Your task to perform on an android device: Toggle the flashlight Image 0: 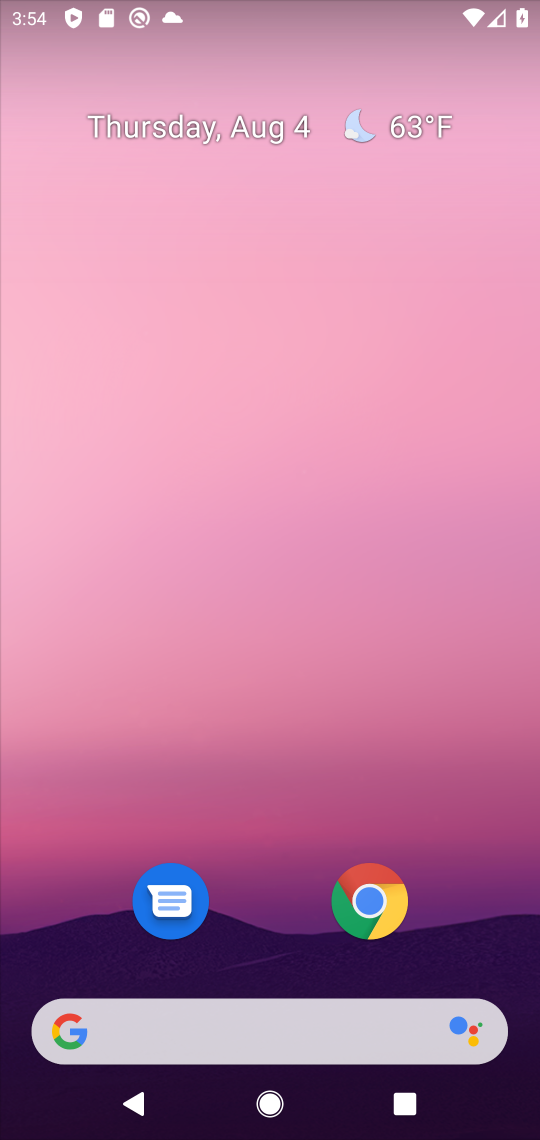
Step 0: drag from (252, 105) to (229, 963)
Your task to perform on an android device: Toggle the flashlight Image 1: 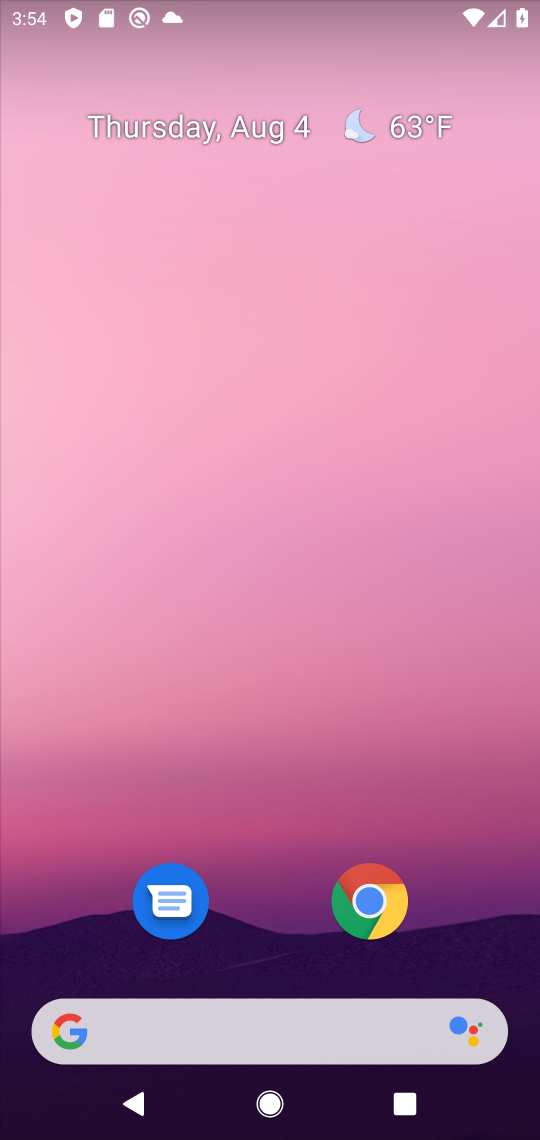
Step 1: task complete